Your task to perform on an android device: change your default location settings in chrome Image 0: 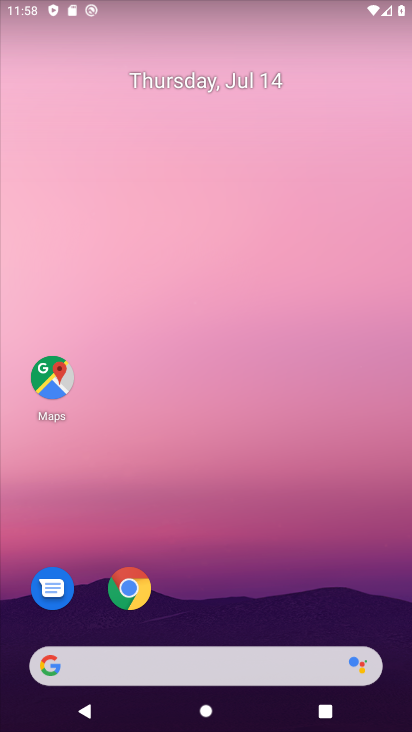
Step 0: click (125, 595)
Your task to perform on an android device: change your default location settings in chrome Image 1: 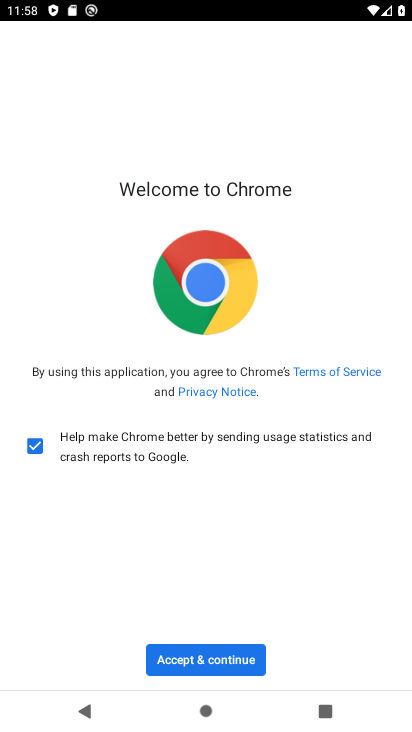
Step 1: click (213, 647)
Your task to perform on an android device: change your default location settings in chrome Image 2: 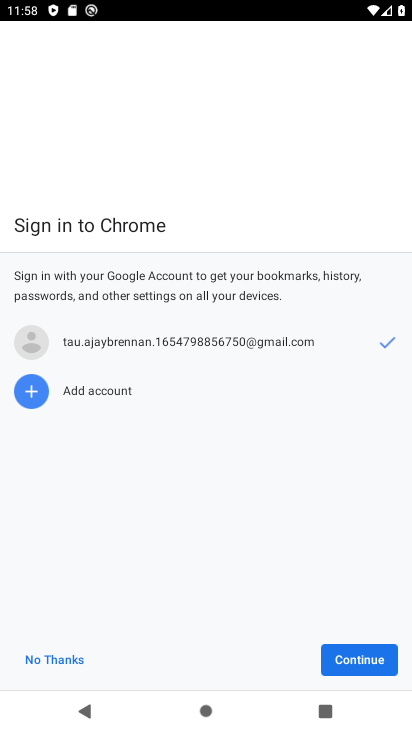
Step 2: click (360, 651)
Your task to perform on an android device: change your default location settings in chrome Image 3: 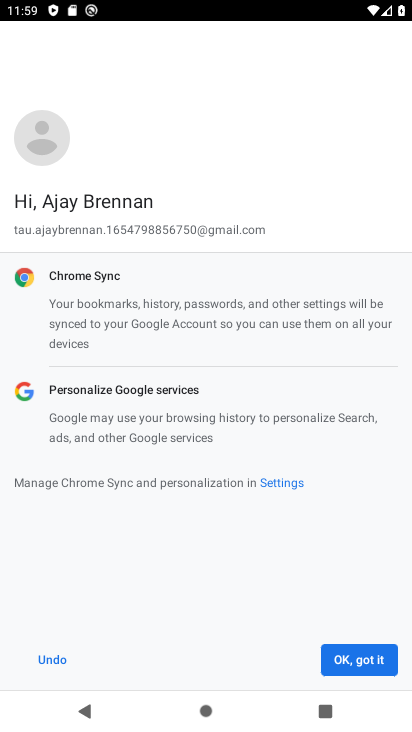
Step 3: click (390, 656)
Your task to perform on an android device: change your default location settings in chrome Image 4: 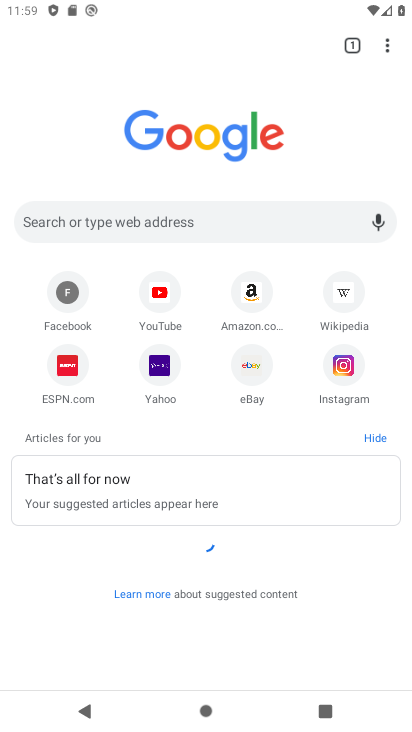
Step 4: click (395, 46)
Your task to perform on an android device: change your default location settings in chrome Image 5: 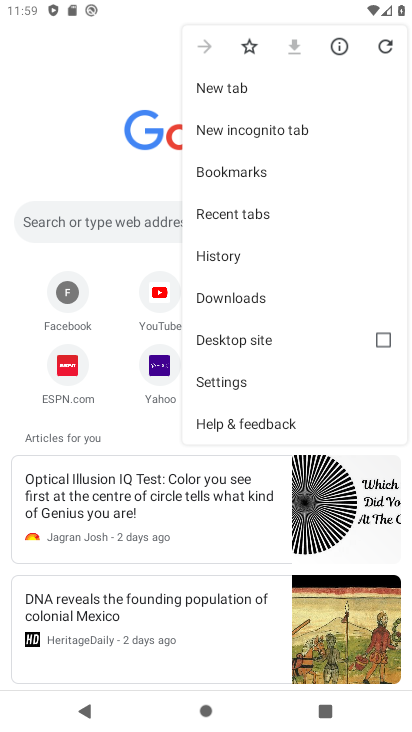
Step 5: click (246, 379)
Your task to perform on an android device: change your default location settings in chrome Image 6: 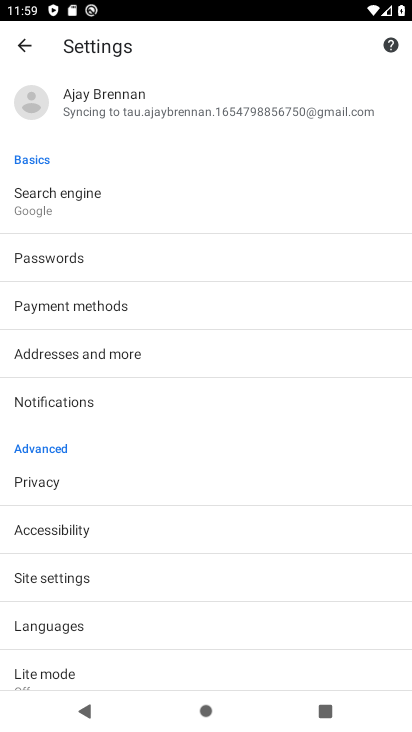
Step 6: click (139, 574)
Your task to perform on an android device: change your default location settings in chrome Image 7: 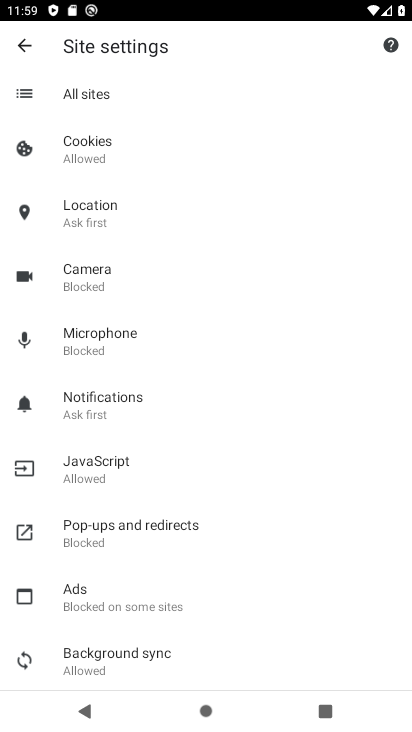
Step 7: click (112, 217)
Your task to perform on an android device: change your default location settings in chrome Image 8: 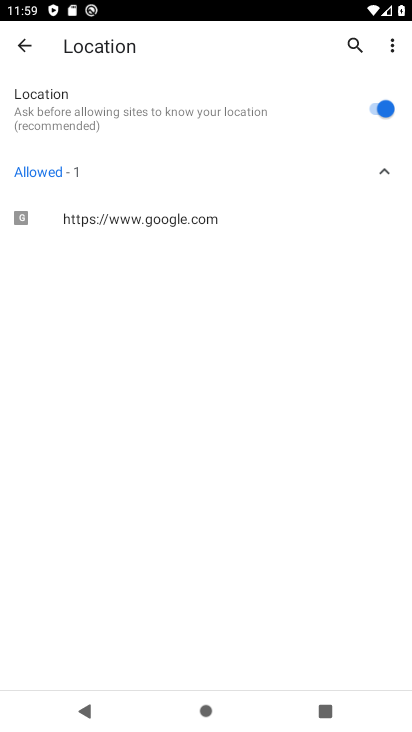
Step 8: click (372, 108)
Your task to perform on an android device: change your default location settings in chrome Image 9: 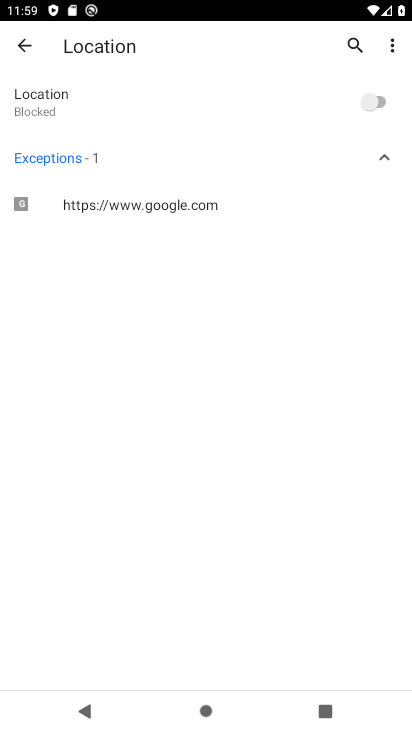
Step 9: task complete